Your task to perform on an android device: Go to location settings Image 0: 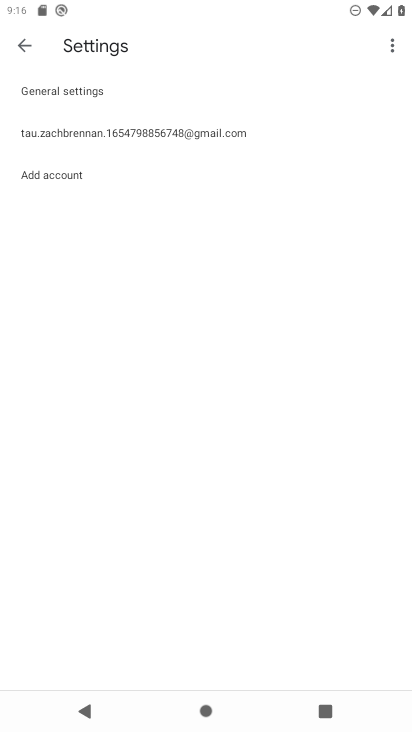
Step 0: drag from (240, 9) to (274, 534)
Your task to perform on an android device: Go to location settings Image 1: 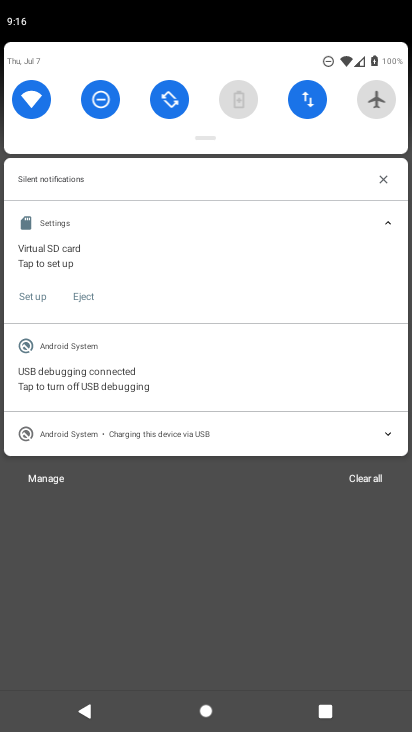
Step 1: drag from (200, 60) to (217, 682)
Your task to perform on an android device: Go to location settings Image 2: 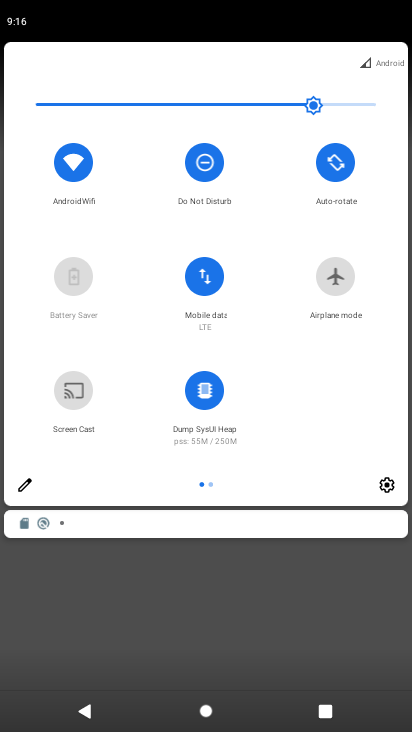
Step 2: click (390, 488)
Your task to perform on an android device: Go to location settings Image 3: 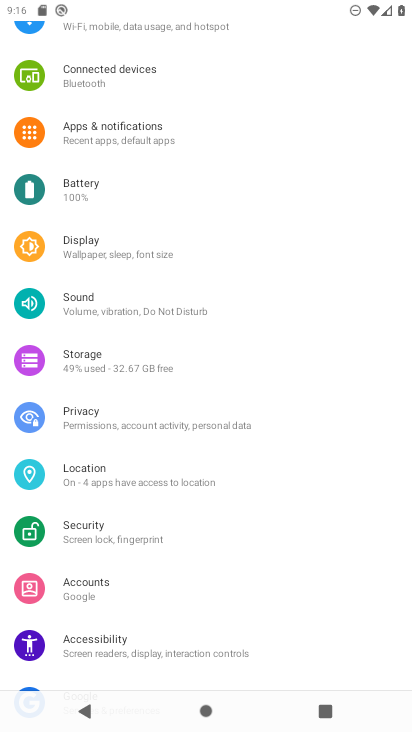
Step 3: click (114, 483)
Your task to perform on an android device: Go to location settings Image 4: 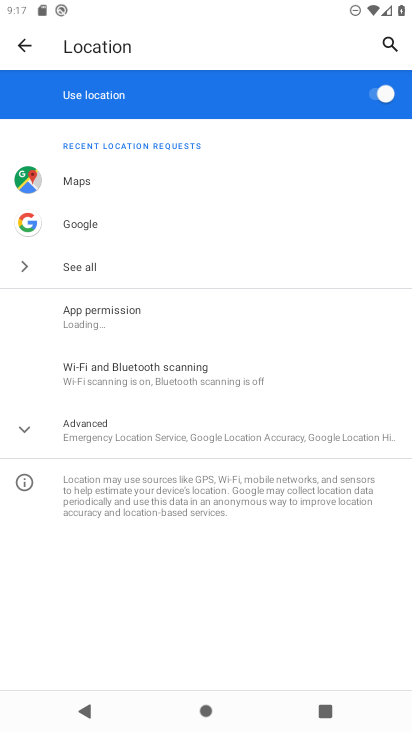
Step 4: task complete